Your task to perform on an android device: Open Android settings Image 0: 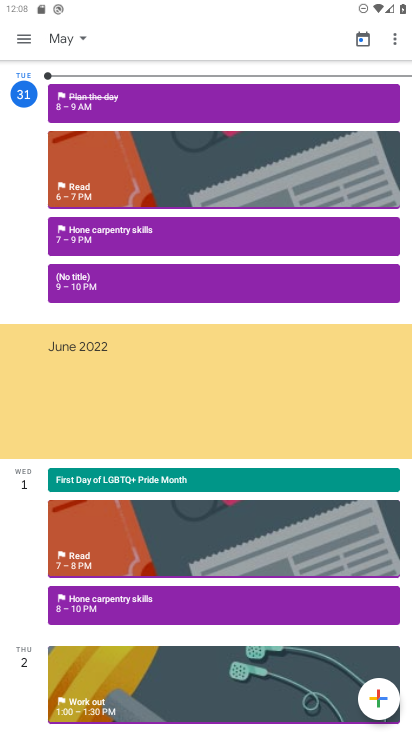
Step 0: drag from (179, 545) to (194, 149)
Your task to perform on an android device: Open Android settings Image 1: 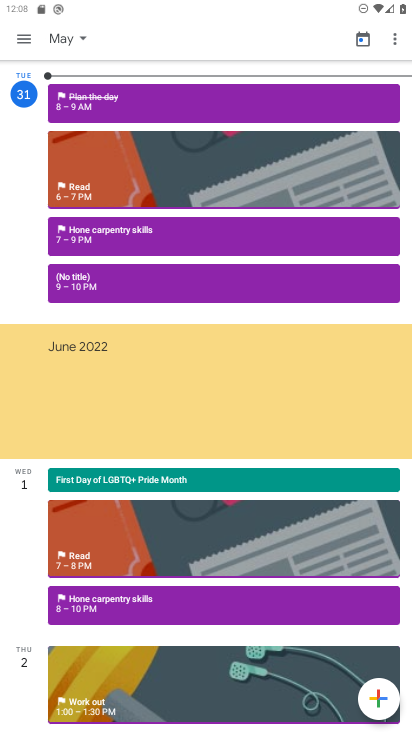
Step 1: drag from (233, 599) to (288, 715)
Your task to perform on an android device: Open Android settings Image 2: 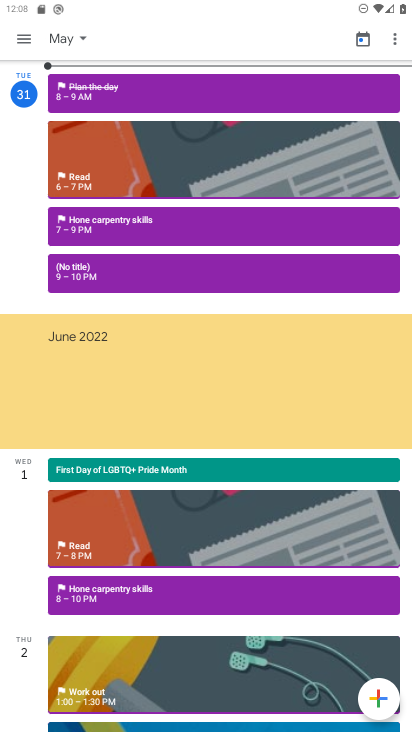
Step 2: press home button
Your task to perform on an android device: Open Android settings Image 3: 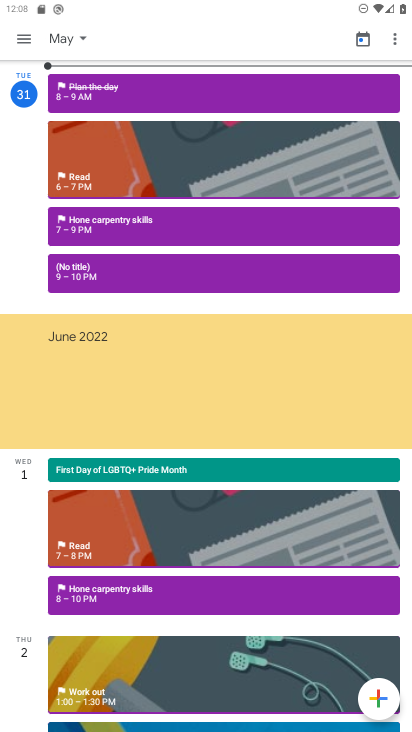
Step 3: press home button
Your task to perform on an android device: Open Android settings Image 4: 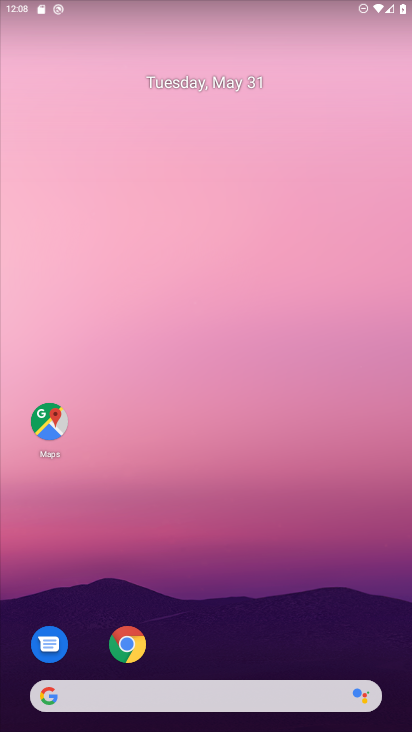
Step 4: drag from (164, 535) to (189, 40)
Your task to perform on an android device: Open Android settings Image 5: 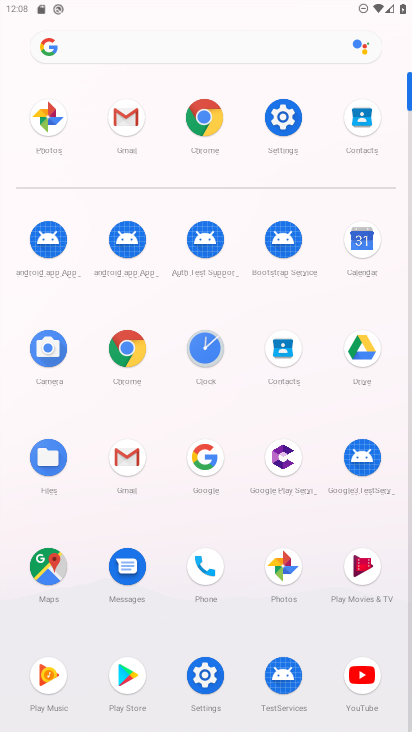
Step 5: click (203, 676)
Your task to perform on an android device: Open Android settings Image 6: 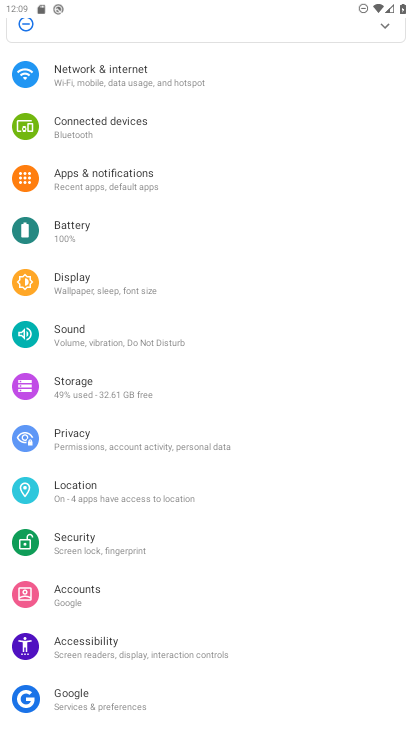
Step 6: drag from (100, 683) to (9, 356)
Your task to perform on an android device: Open Android settings Image 7: 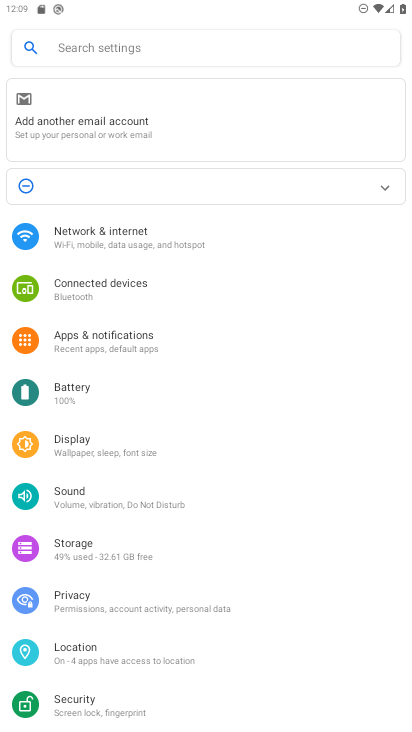
Step 7: drag from (99, 658) to (207, 108)
Your task to perform on an android device: Open Android settings Image 8: 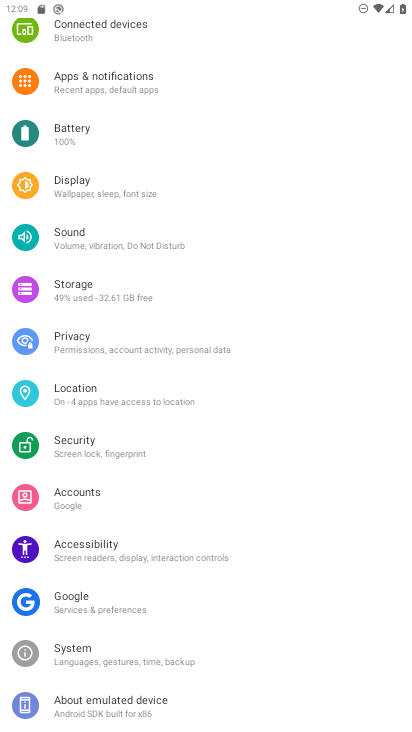
Step 8: click (154, 713)
Your task to perform on an android device: Open Android settings Image 9: 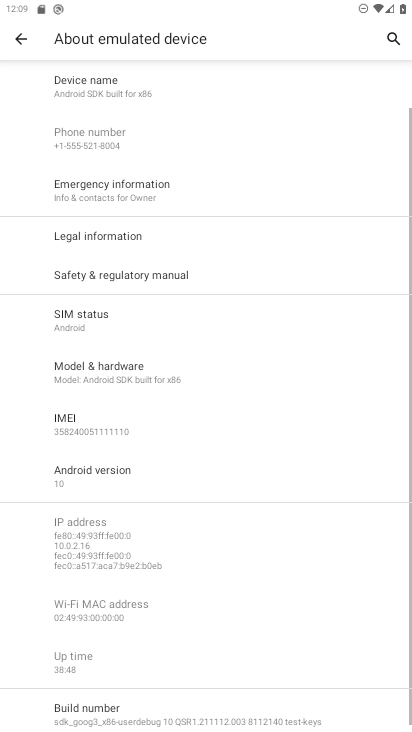
Step 9: click (94, 474)
Your task to perform on an android device: Open Android settings Image 10: 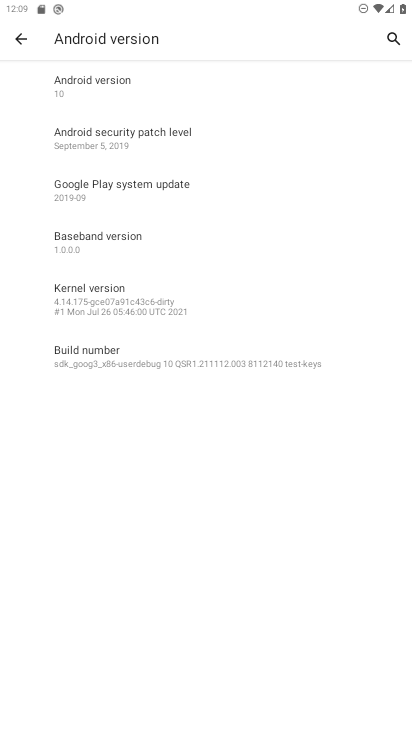
Step 10: task complete